Your task to perform on an android device: toggle show notifications on the lock screen Image 0: 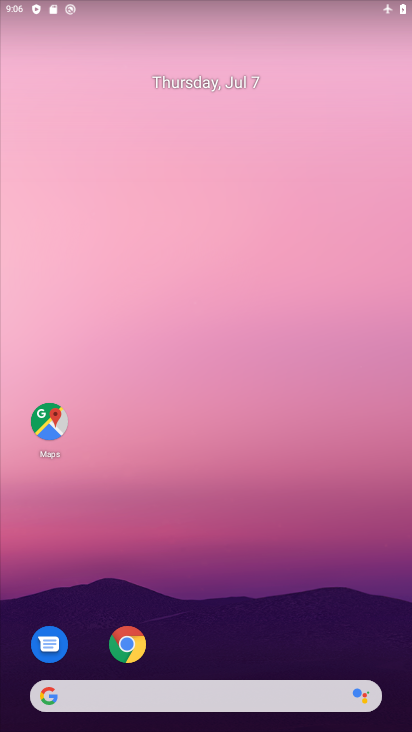
Step 0: drag from (367, 615) to (254, 144)
Your task to perform on an android device: toggle show notifications on the lock screen Image 1: 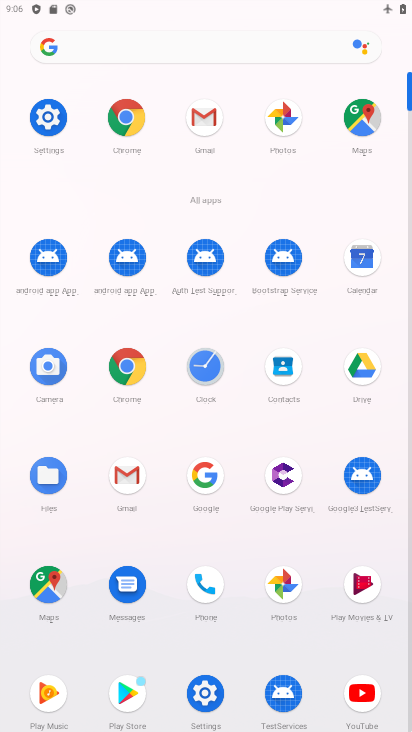
Step 1: click (55, 119)
Your task to perform on an android device: toggle show notifications on the lock screen Image 2: 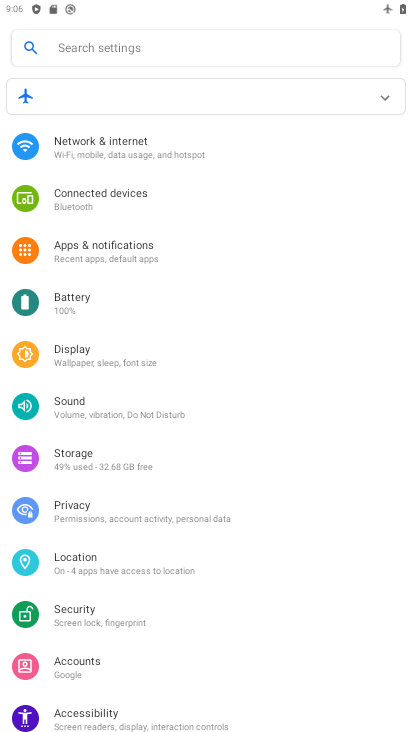
Step 2: click (111, 246)
Your task to perform on an android device: toggle show notifications on the lock screen Image 3: 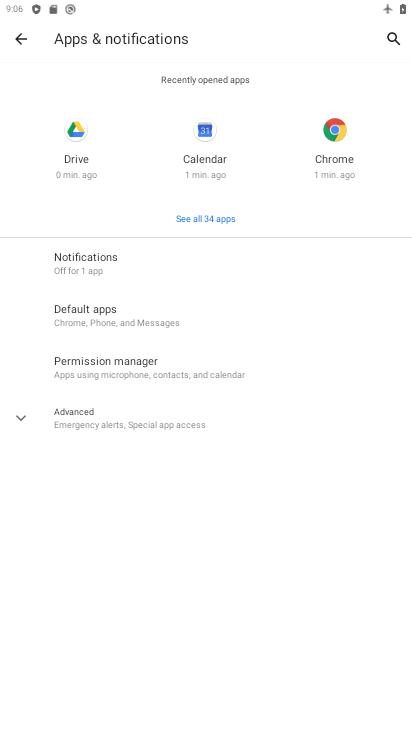
Step 3: click (107, 263)
Your task to perform on an android device: toggle show notifications on the lock screen Image 4: 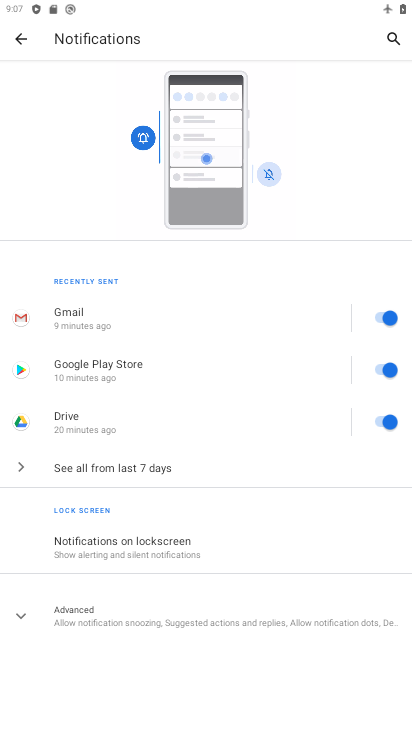
Step 4: click (139, 546)
Your task to perform on an android device: toggle show notifications on the lock screen Image 5: 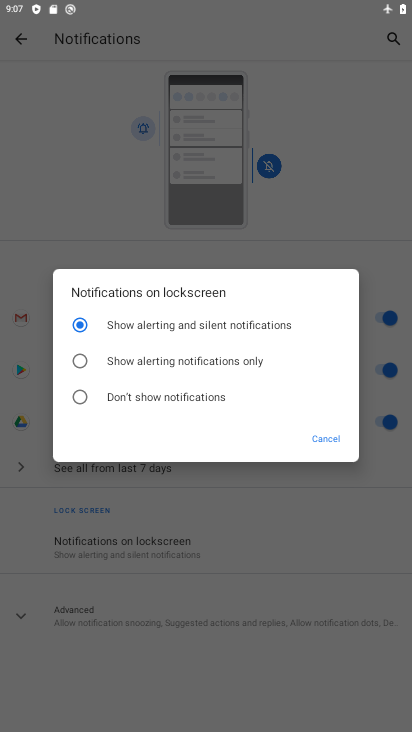
Step 5: click (227, 371)
Your task to perform on an android device: toggle show notifications on the lock screen Image 6: 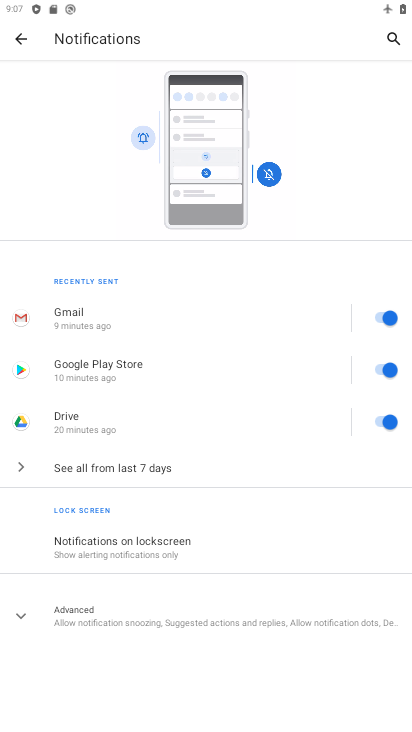
Step 6: task complete